Your task to perform on an android device: check google app version Image 0: 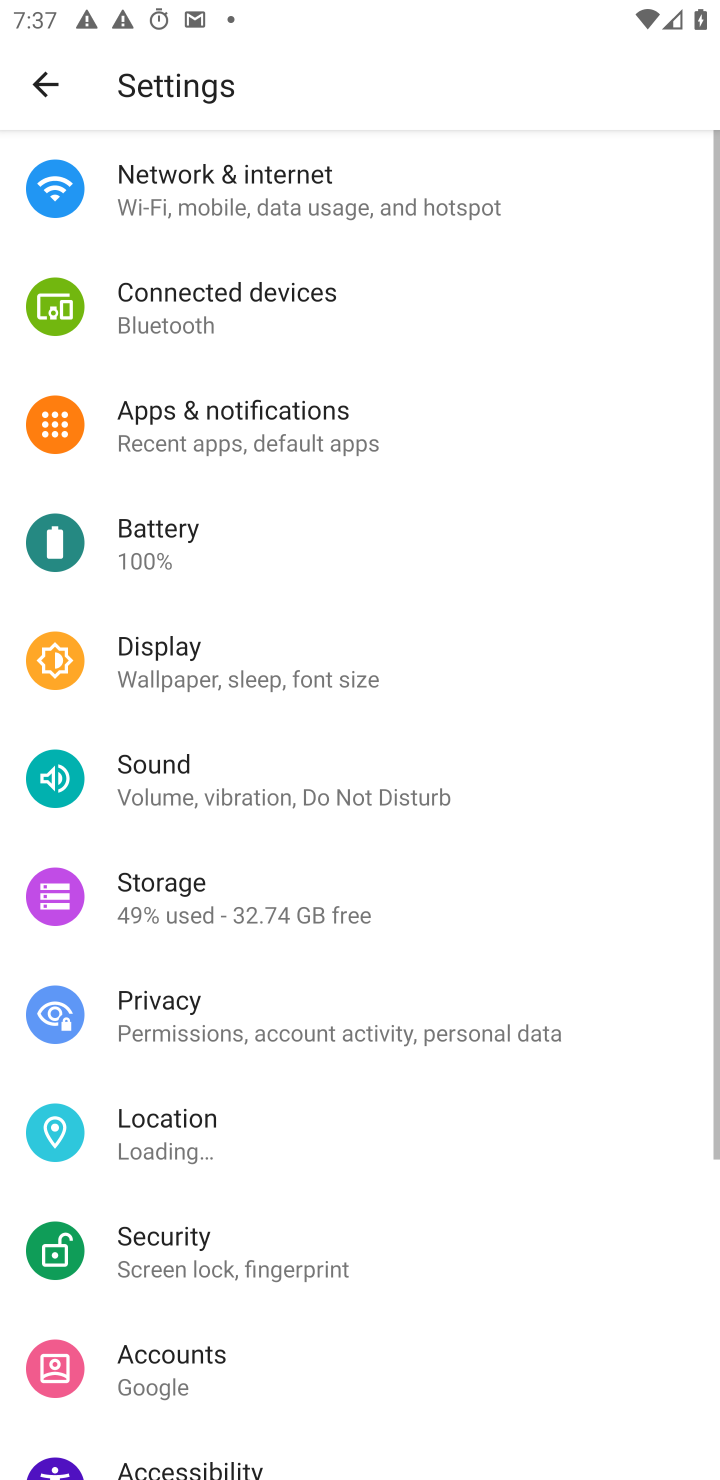
Step 0: press home button
Your task to perform on an android device: check google app version Image 1: 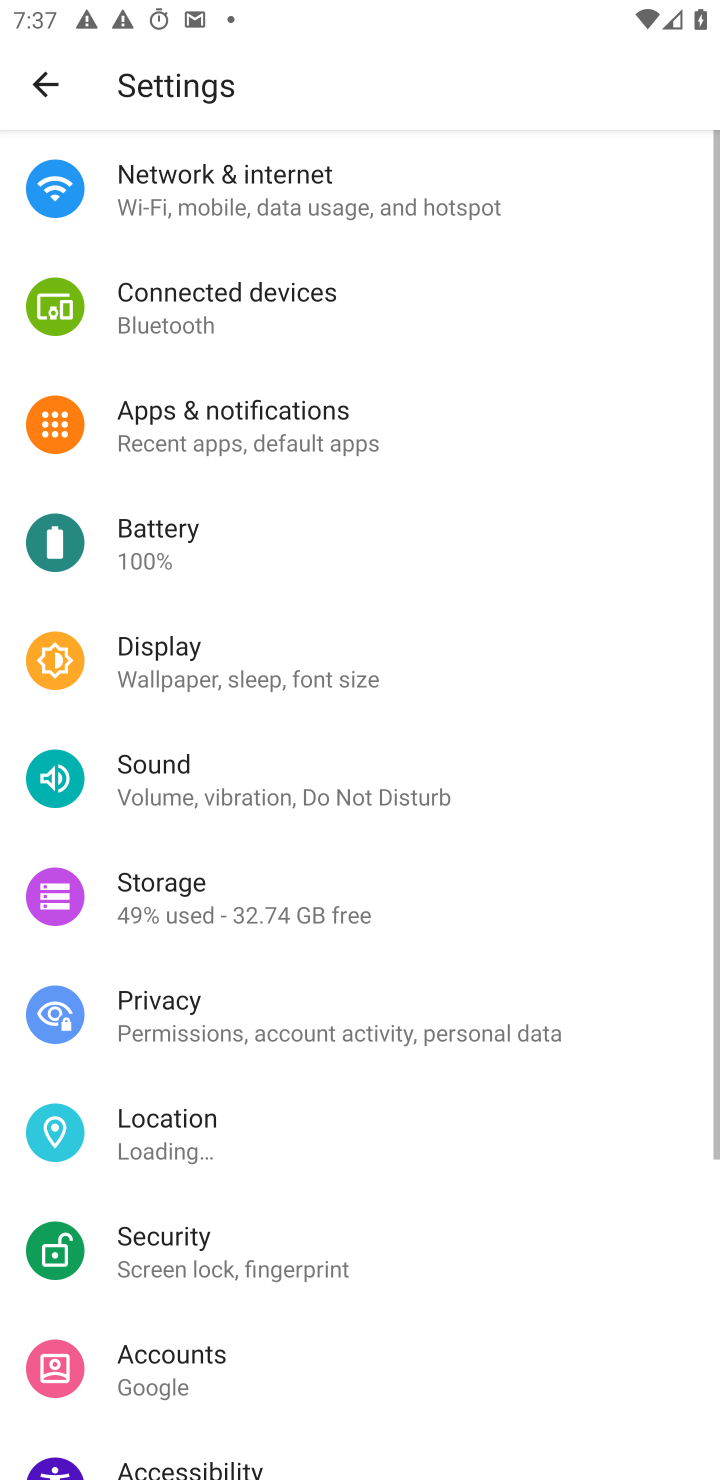
Step 1: drag from (517, 315) to (478, 1479)
Your task to perform on an android device: check google app version Image 2: 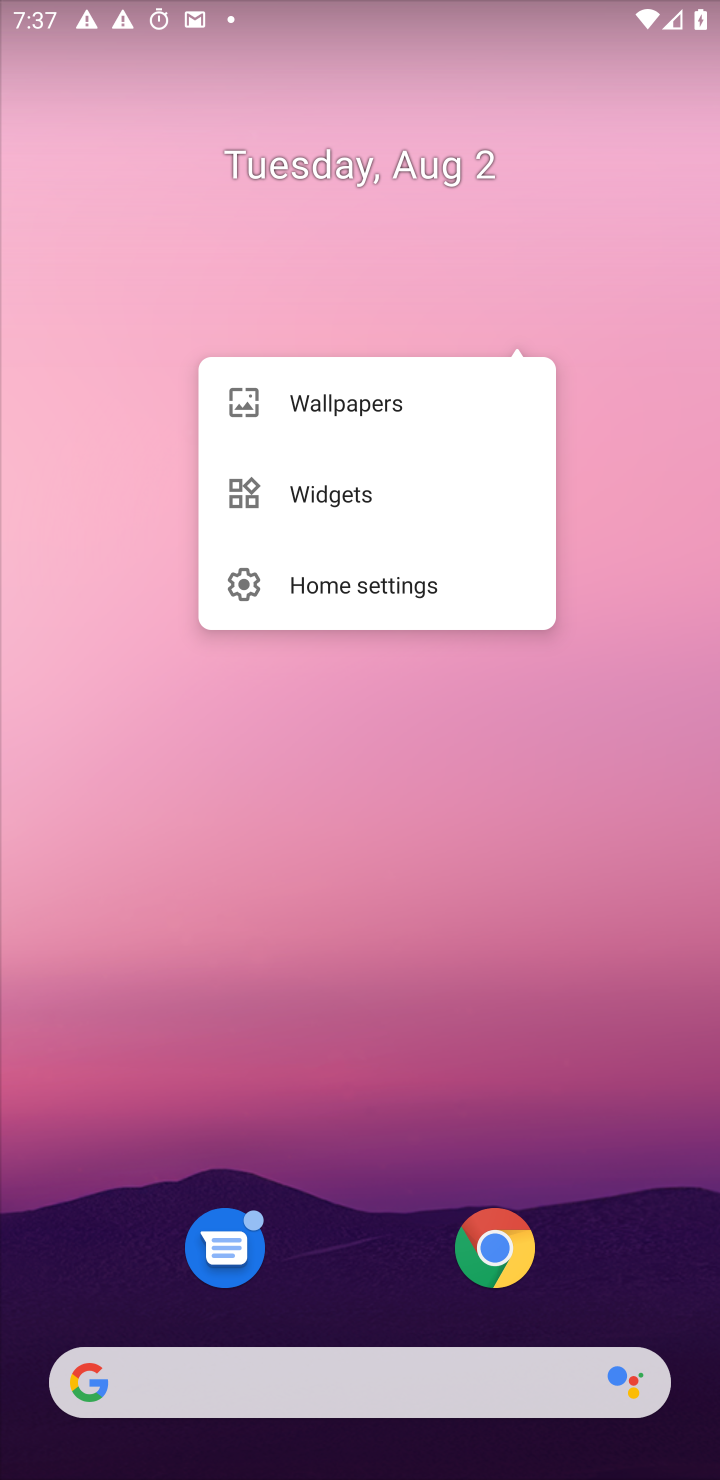
Step 2: drag from (440, 991) to (647, 357)
Your task to perform on an android device: check google app version Image 3: 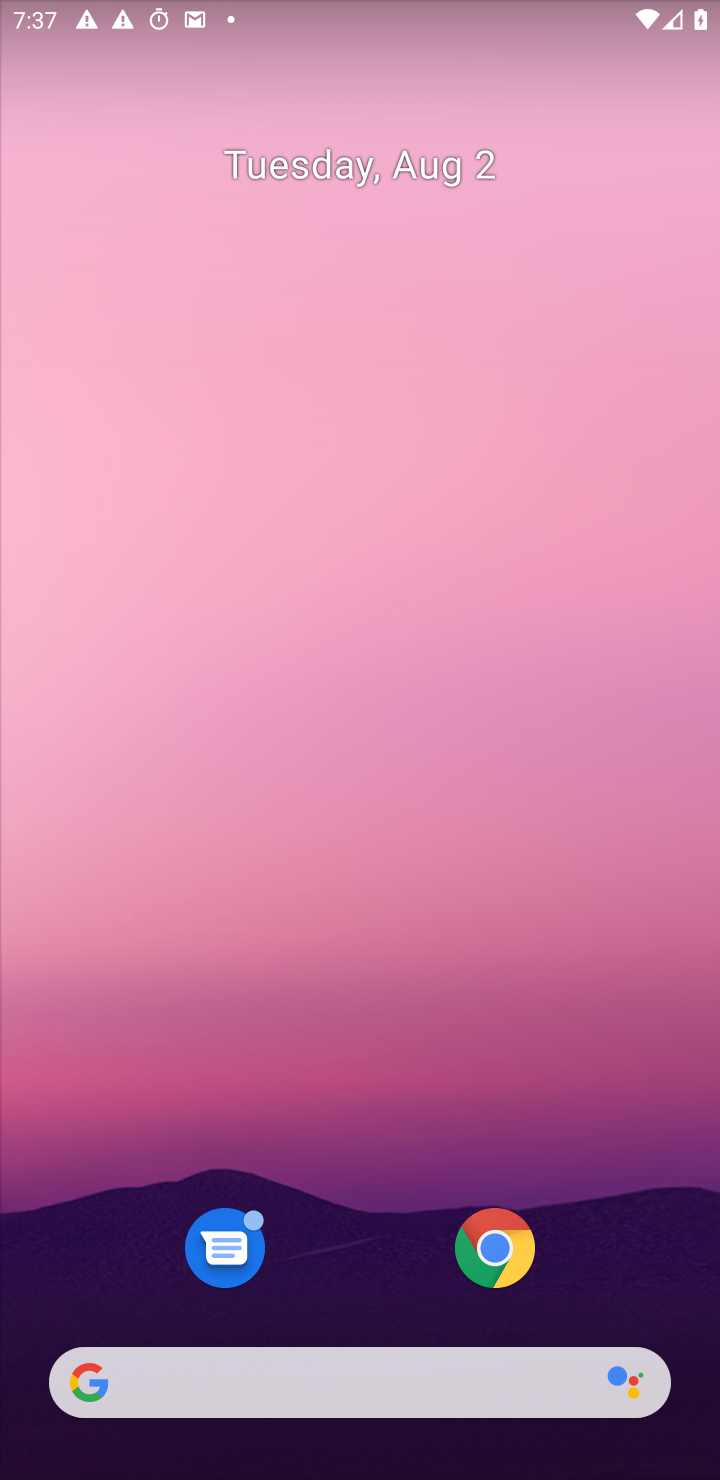
Step 3: drag from (374, 1252) to (52, 669)
Your task to perform on an android device: check google app version Image 4: 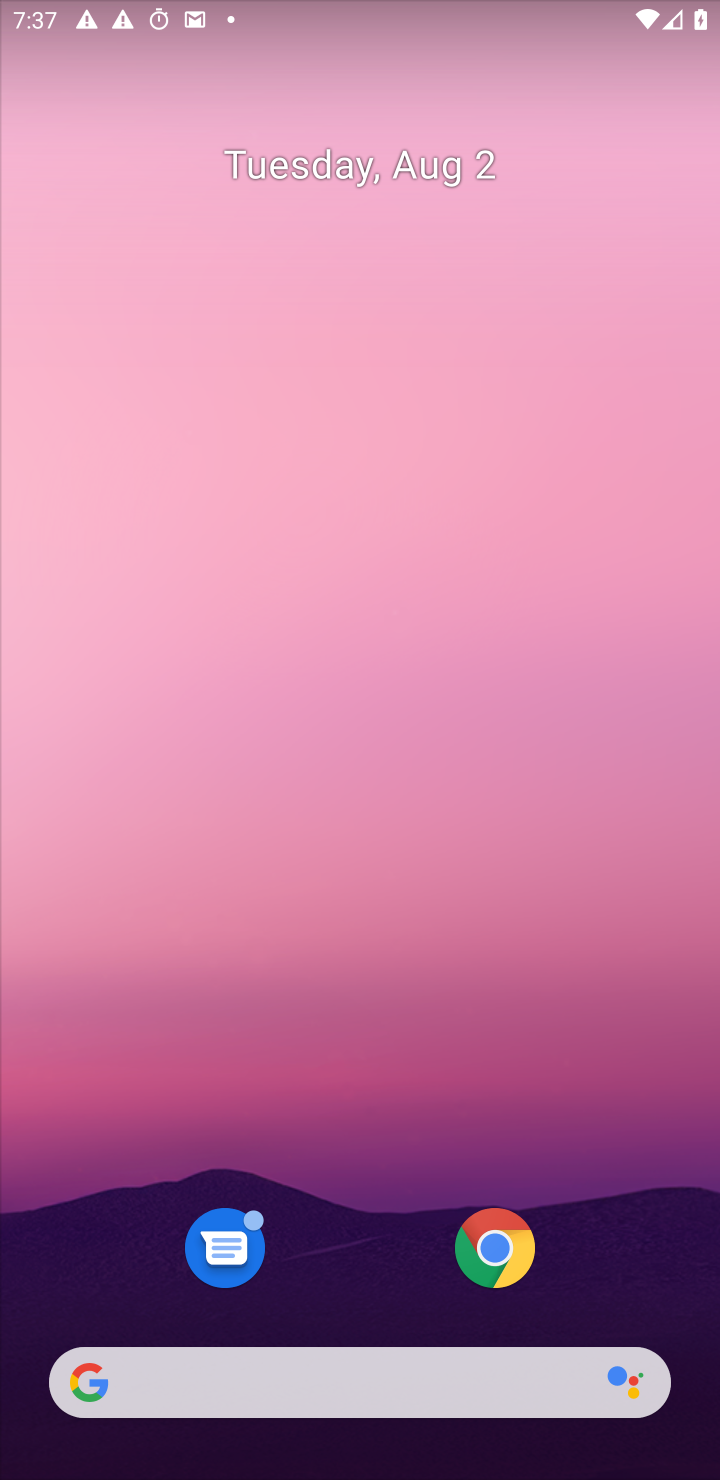
Step 4: drag from (355, 1171) to (29, 200)
Your task to perform on an android device: check google app version Image 5: 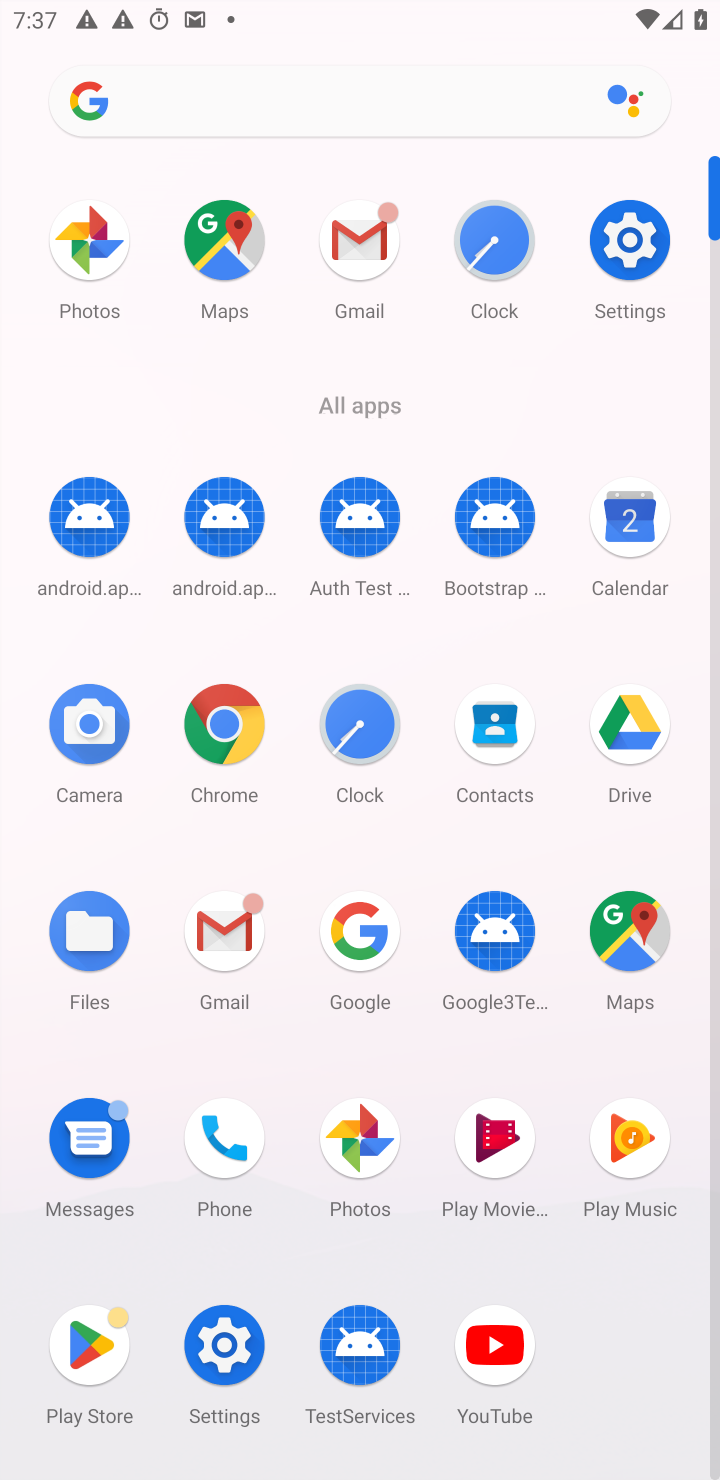
Step 5: click (361, 909)
Your task to perform on an android device: check google app version Image 6: 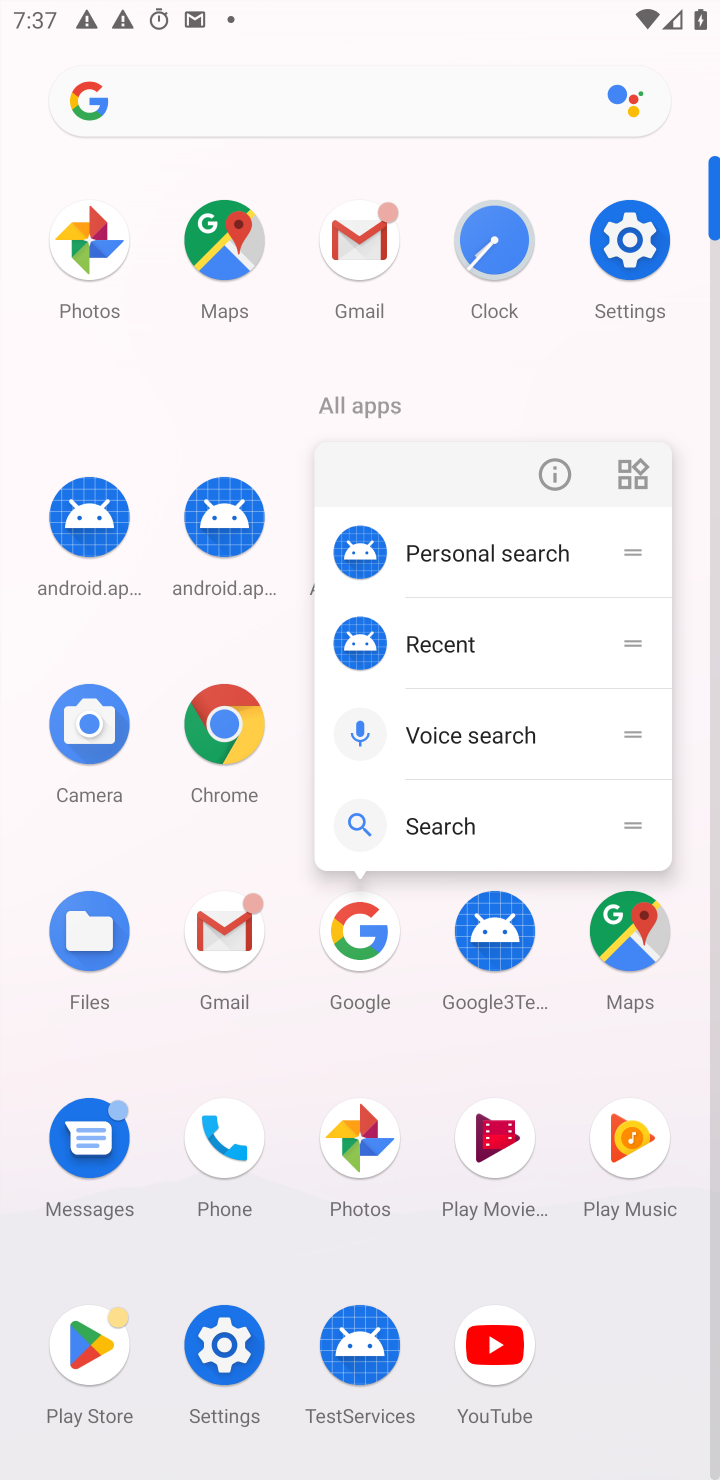
Step 6: click (559, 459)
Your task to perform on an android device: check google app version Image 7: 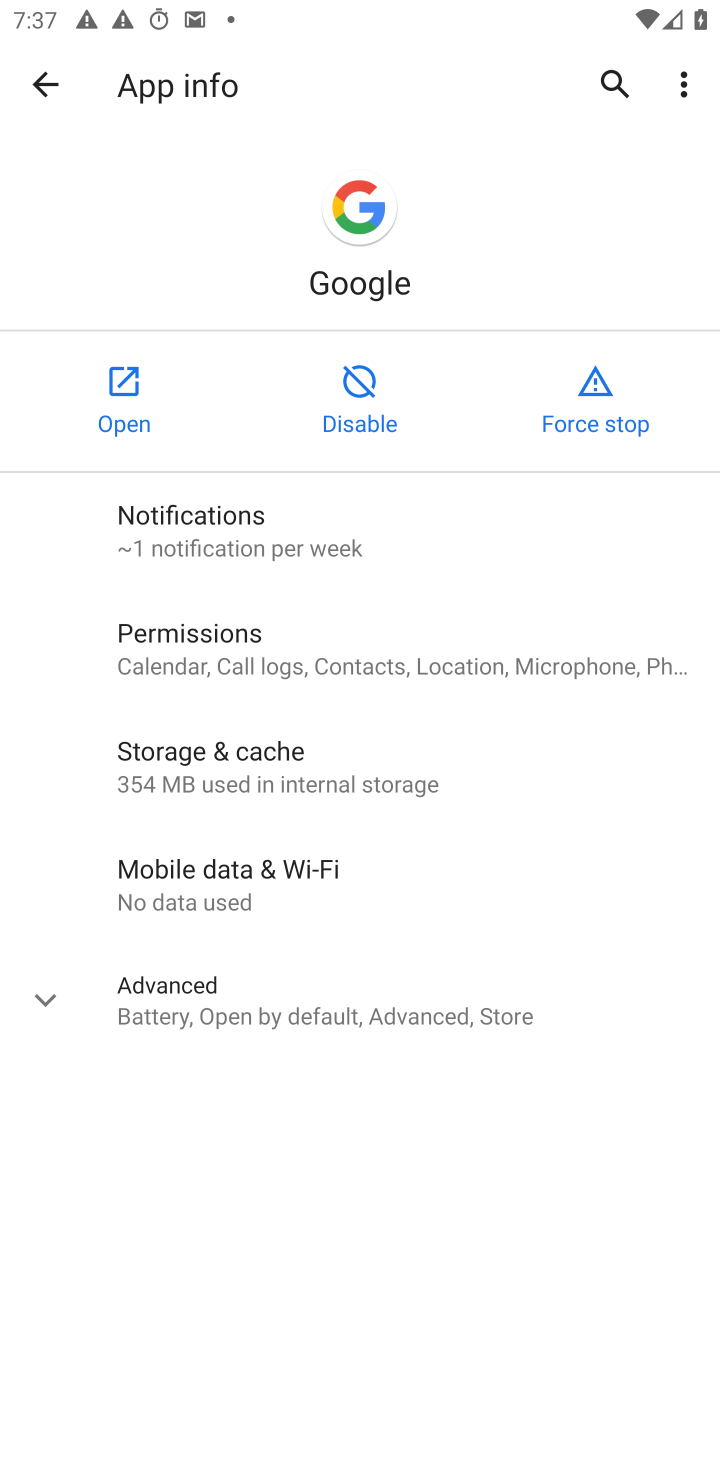
Step 7: click (131, 392)
Your task to perform on an android device: check google app version Image 8: 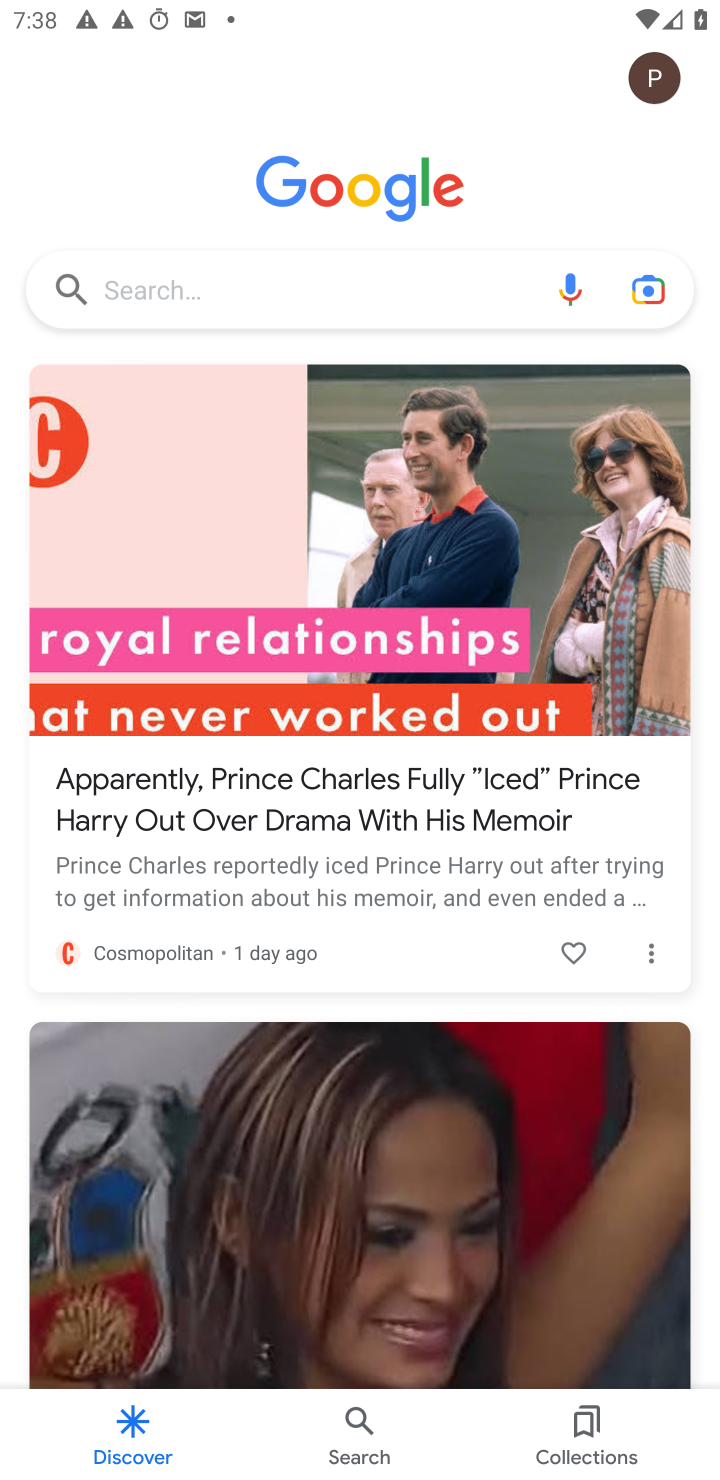
Step 8: drag from (314, 1056) to (666, 1364)
Your task to perform on an android device: check google app version Image 9: 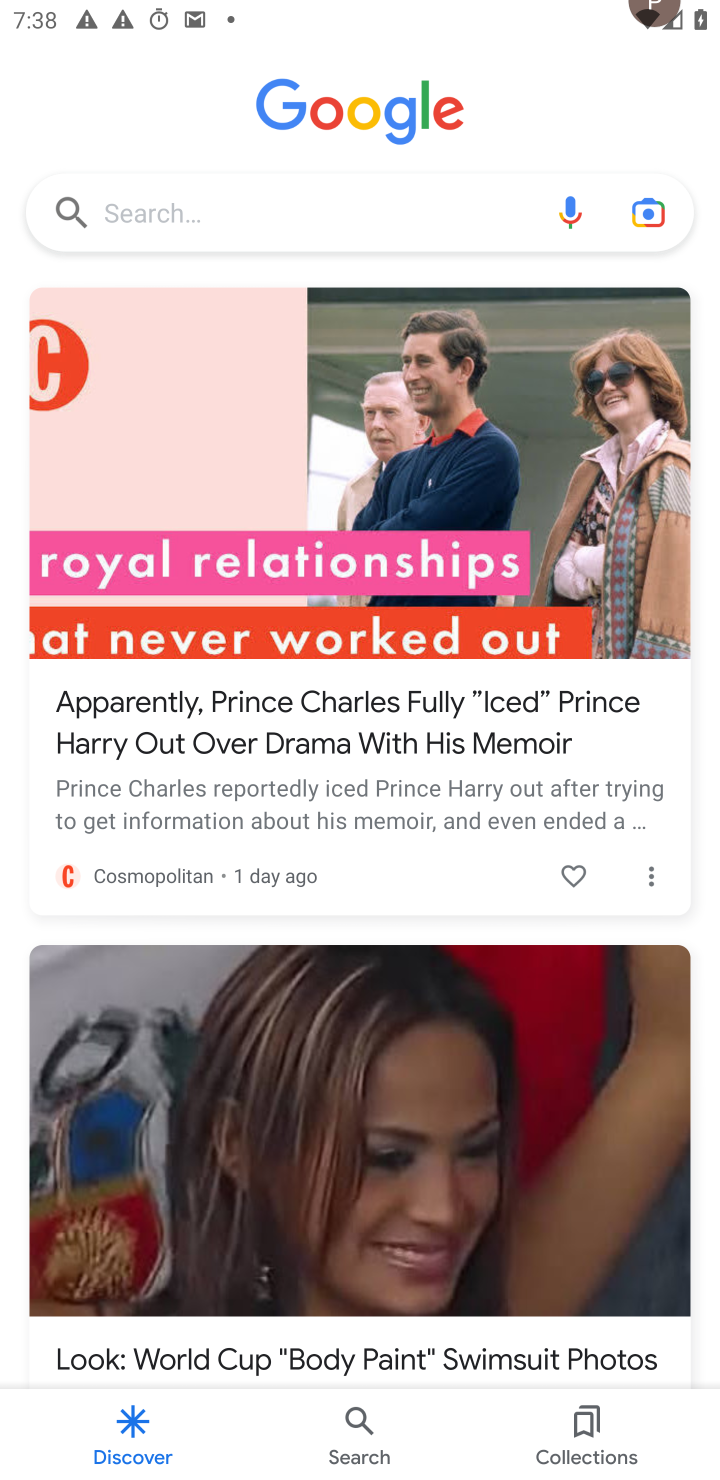
Step 9: click (641, 87)
Your task to perform on an android device: check google app version Image 10: 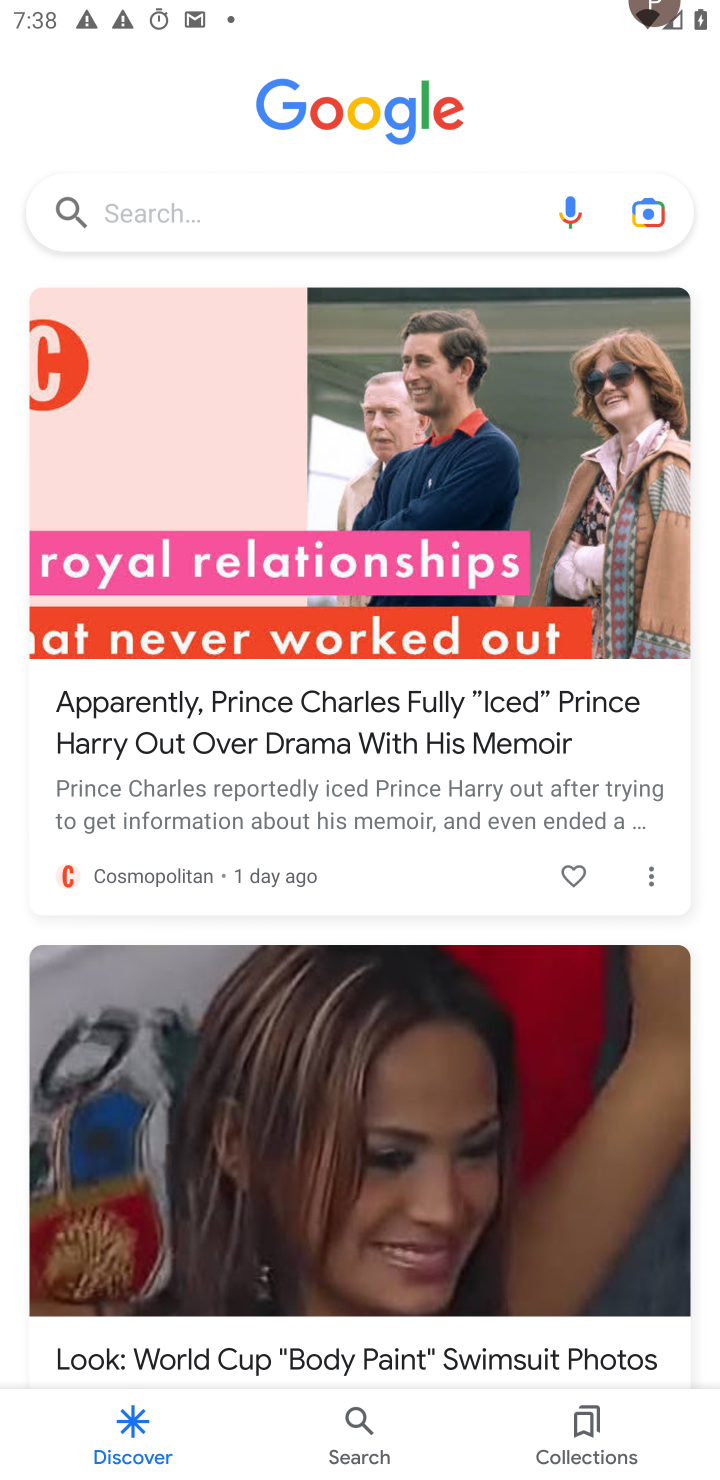
Step 10: drag from (645, 345) to (719, 971)
Your task to perform on an android device: check google app version Image 11: 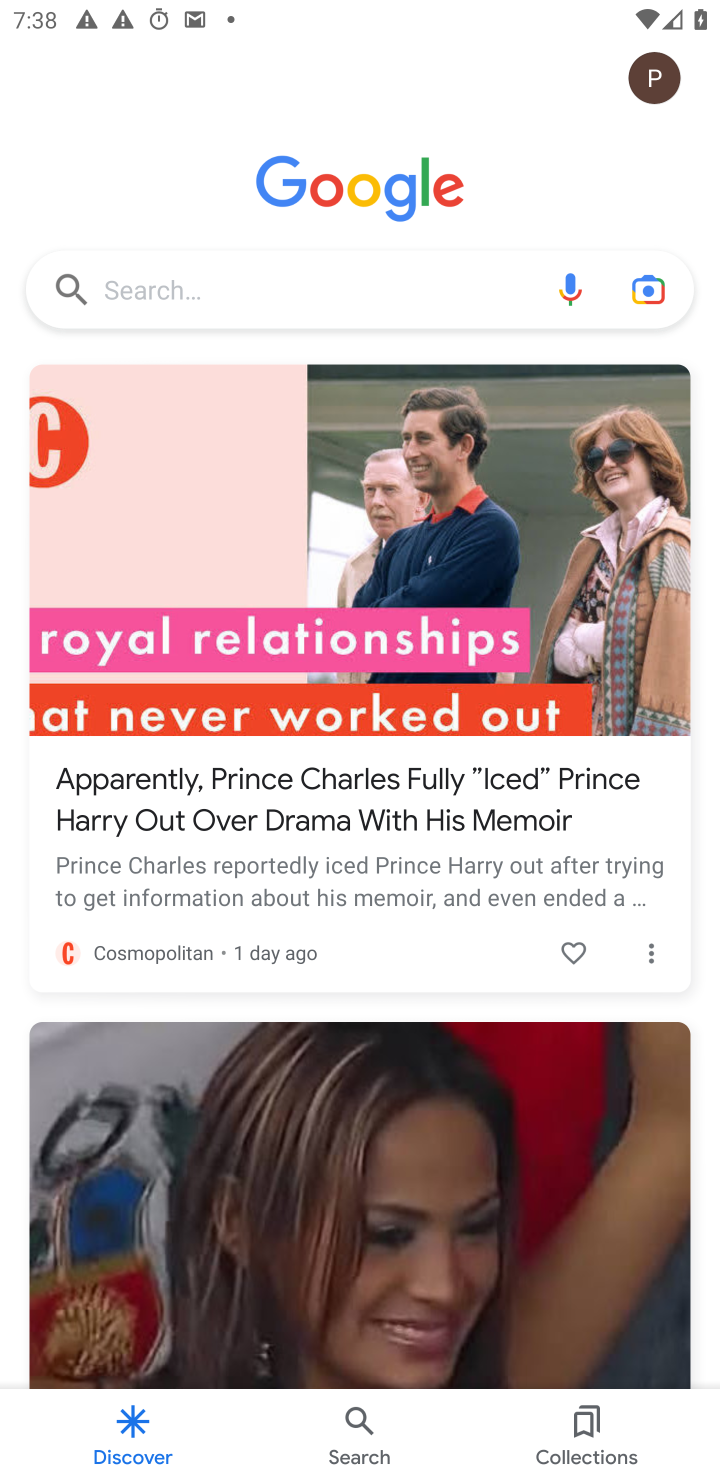
Step 11: click (641, 101)
Your task to perform on an android device: check google app version Image 12: 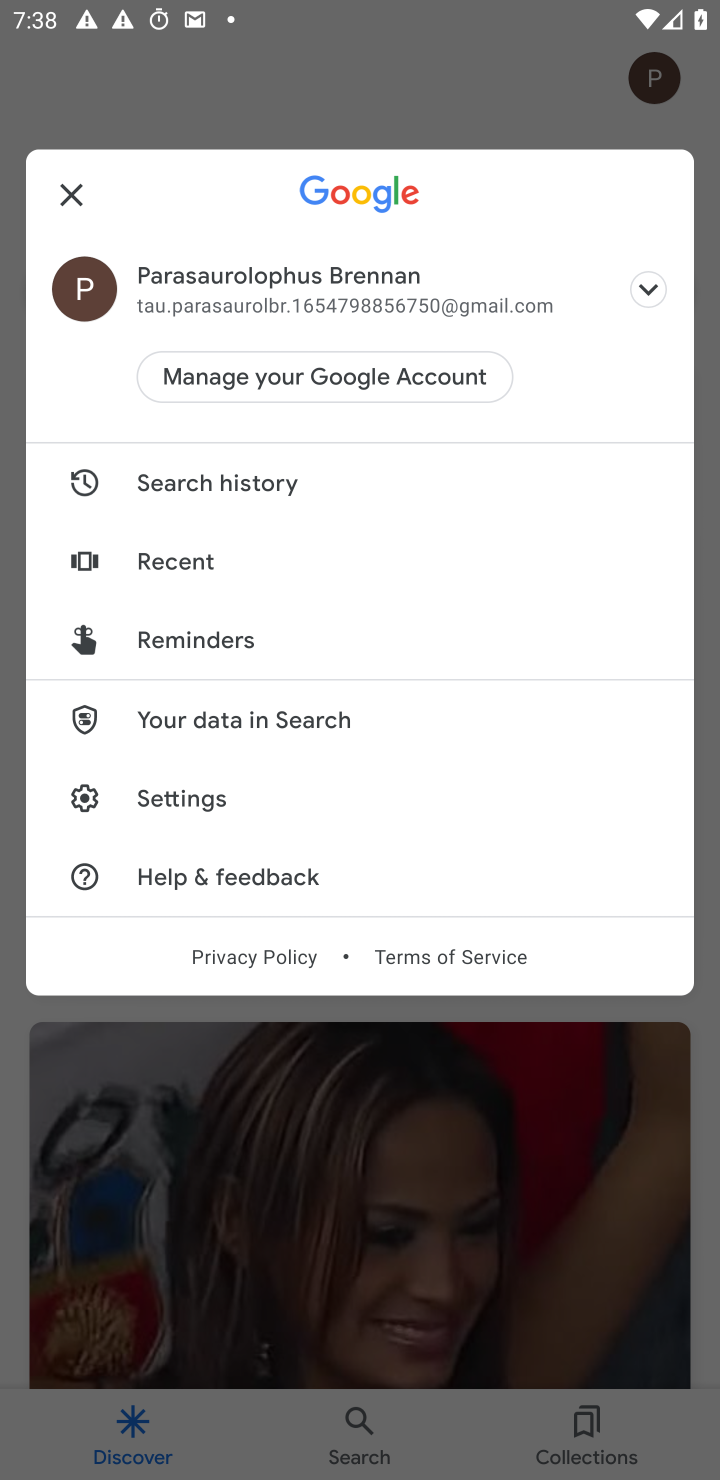
Step 12: click (197, 796)
Your task to perform on an android device: check google app version Image 13: 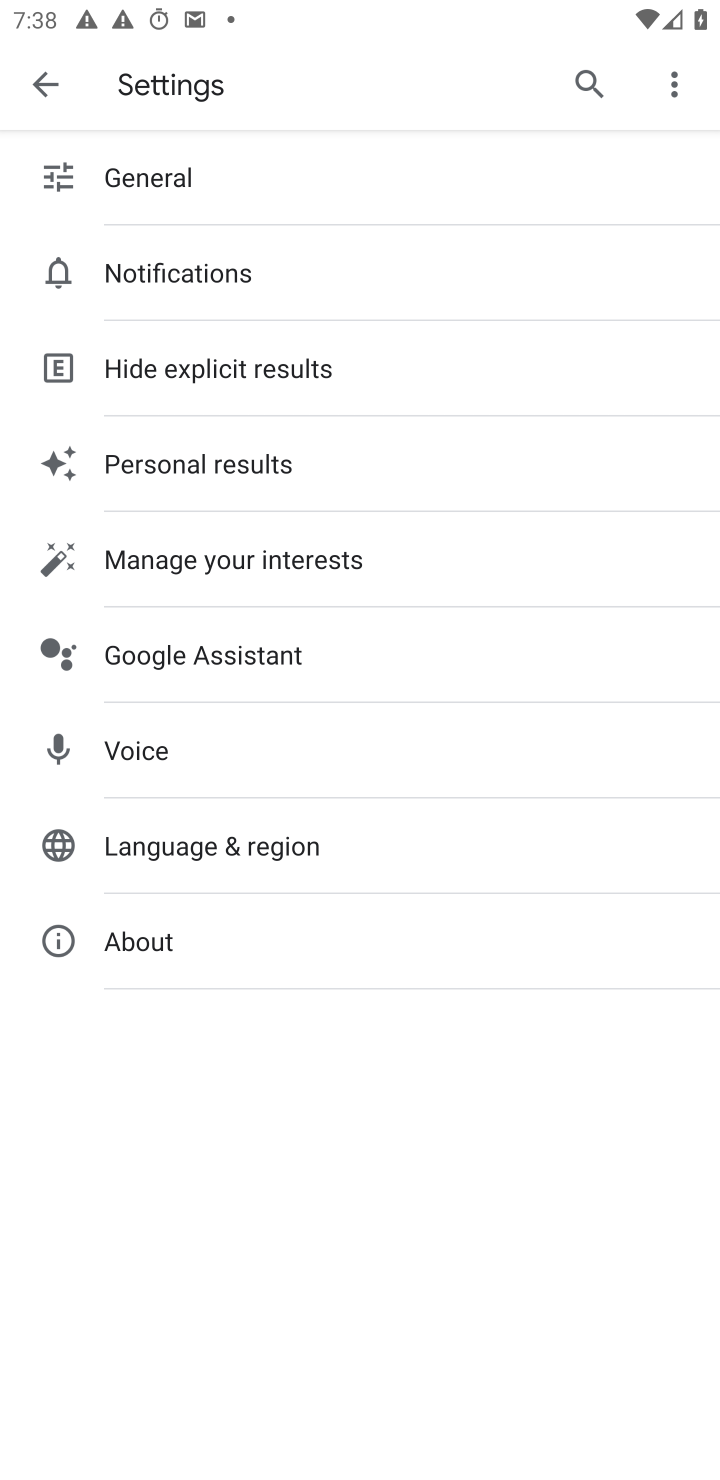
Step 13: click (163, 920)
Your task to perform on an android device: check google app version Image 14: 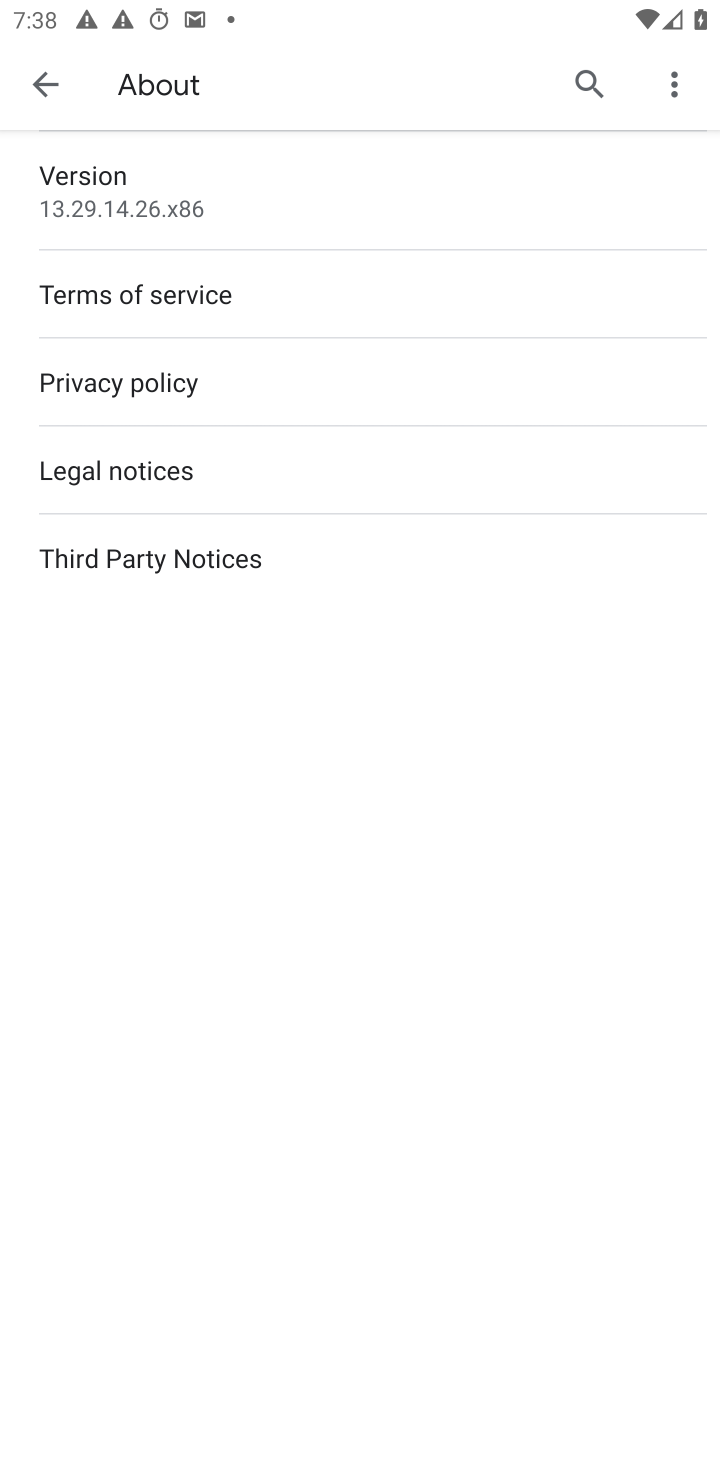
Step 14: click (181, 187)
Your task to perform on an android device: check google app version Image 15: 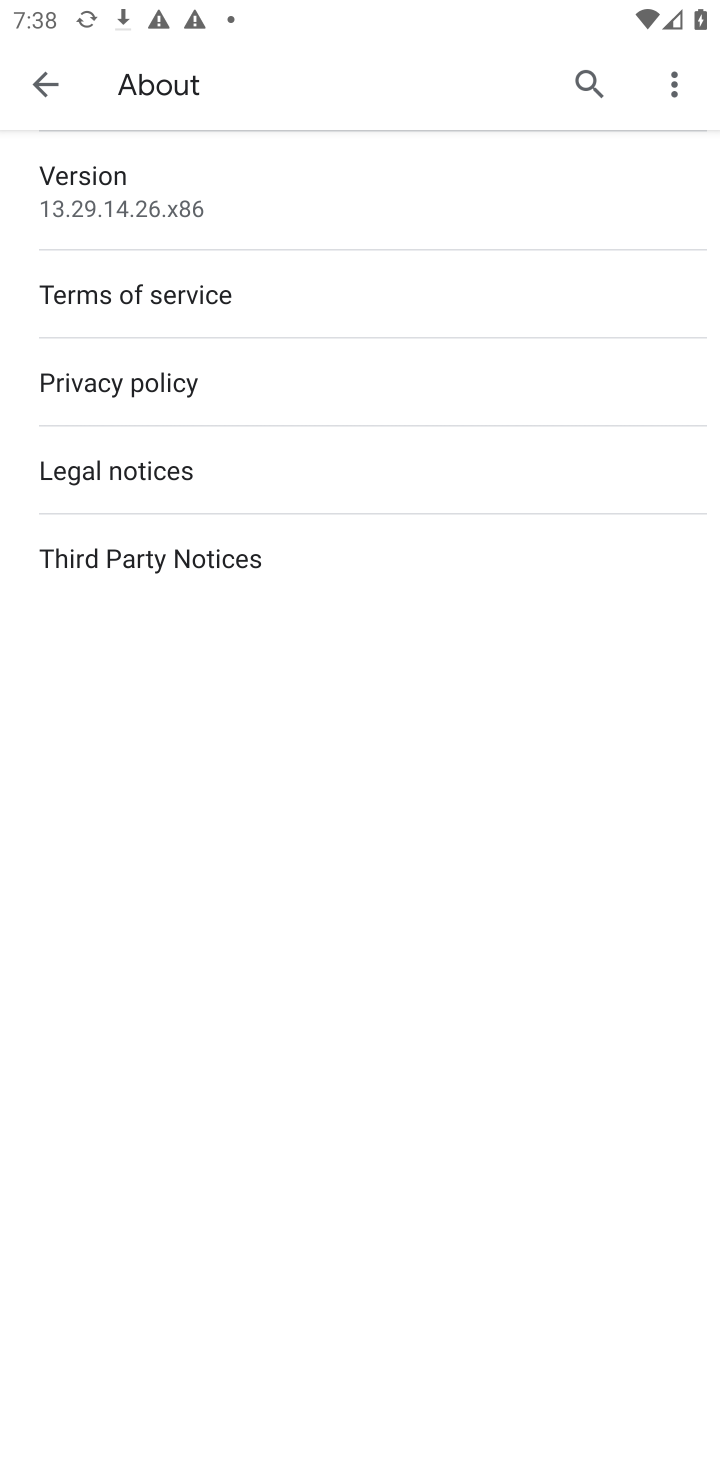
Step 15: click (542, 262)
Your task to perform on an android device: check google app version Image 16: 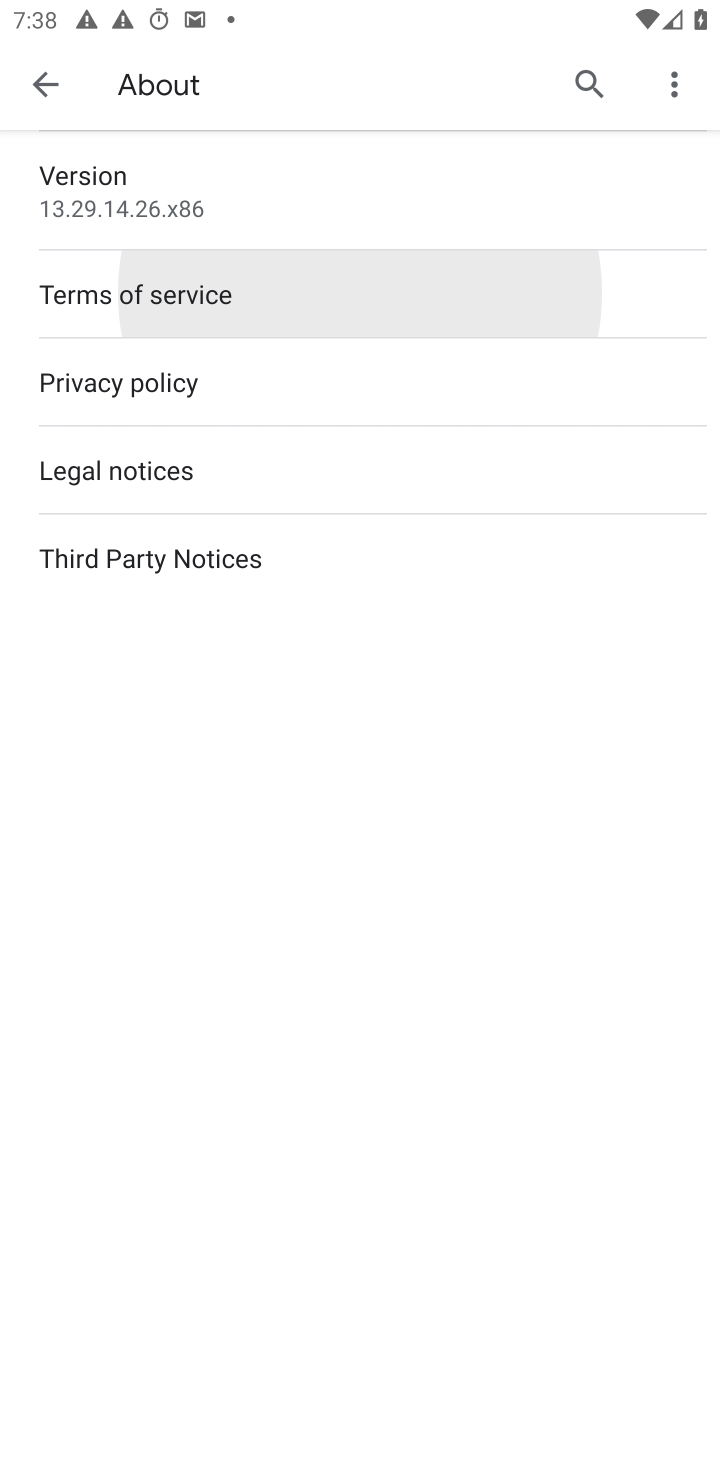
Step 16: click (235, 207)
Your task to perform on an android device: check google app version Image 17: 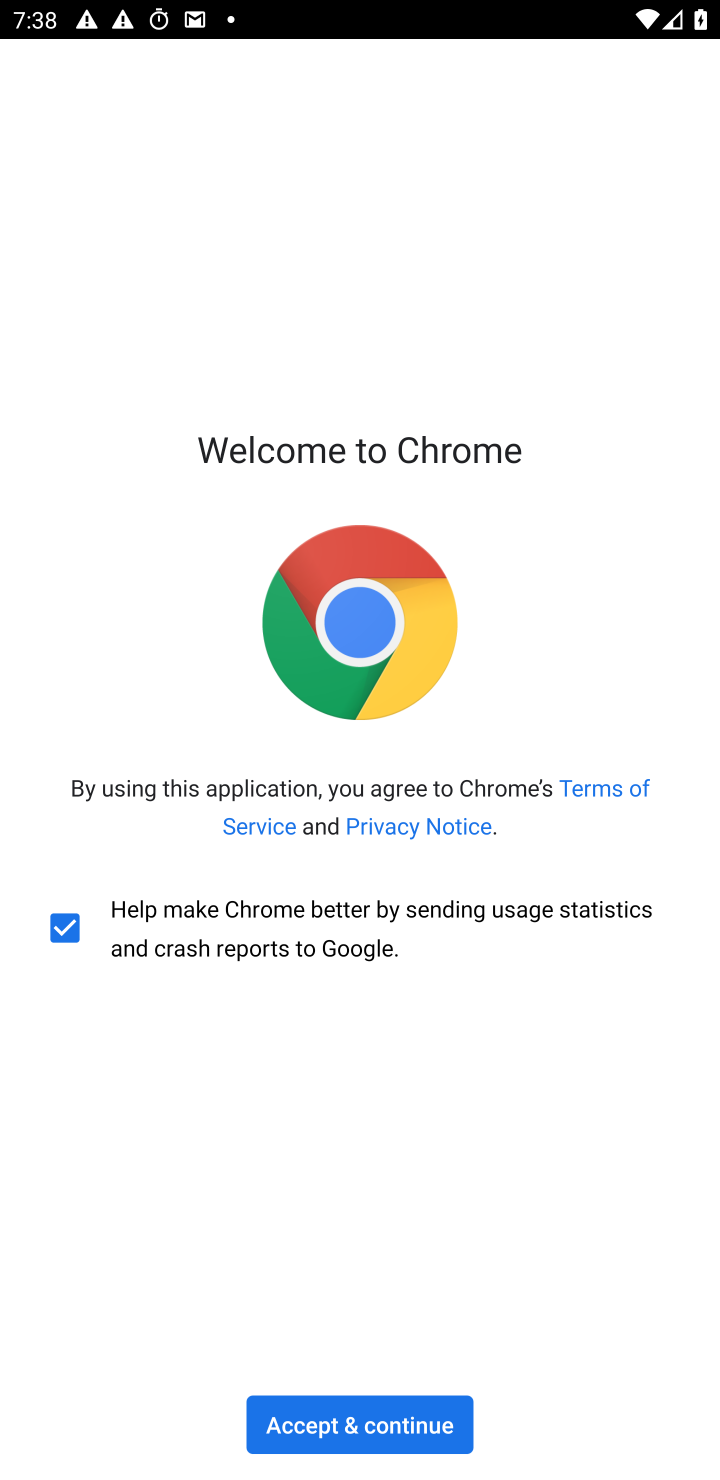
Step 17: press back button
Your task to perform on an android device: check google app version Image 18: 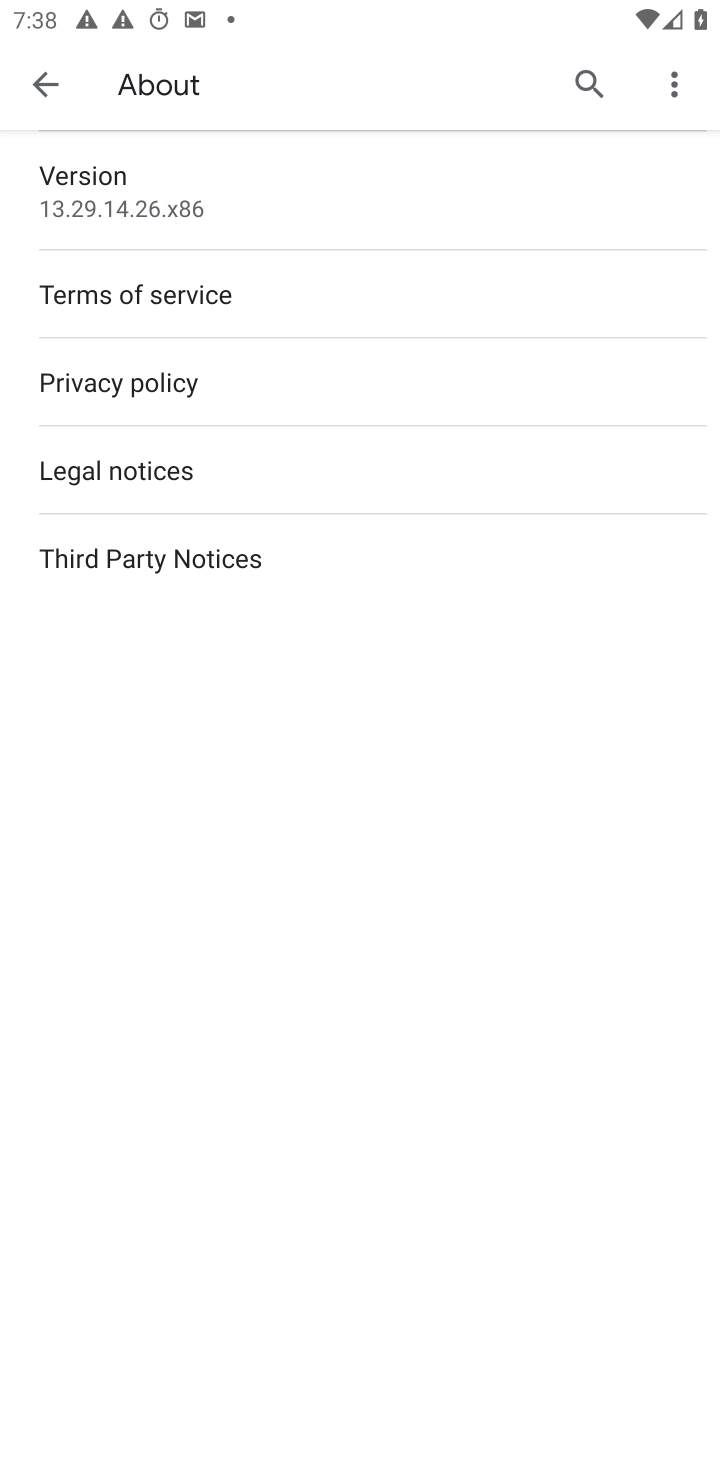
Step 18: click (238, 202)
Your task to perform on an android device: check google app version Image 19: 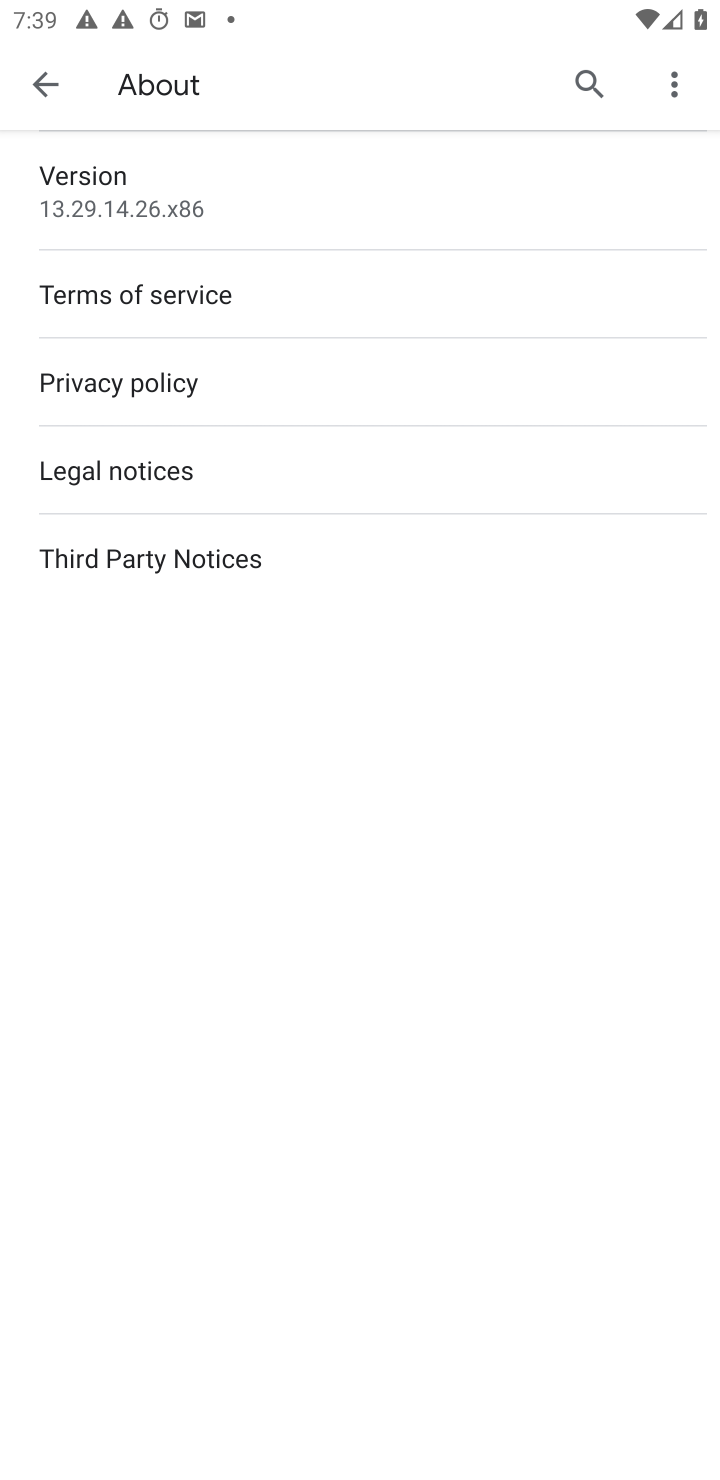
Step 19: task complete